Your task to perform on an android device: install app "Firefox Browser" Image 0: 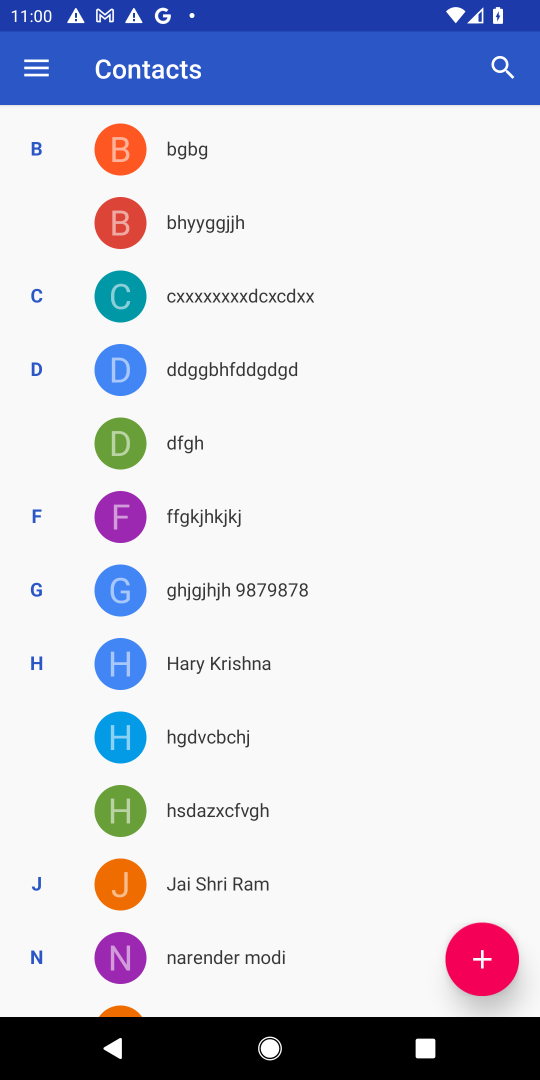
Step 0: press home button
Your task to perform on an android device: install app "Firefox Browser" Image 1: 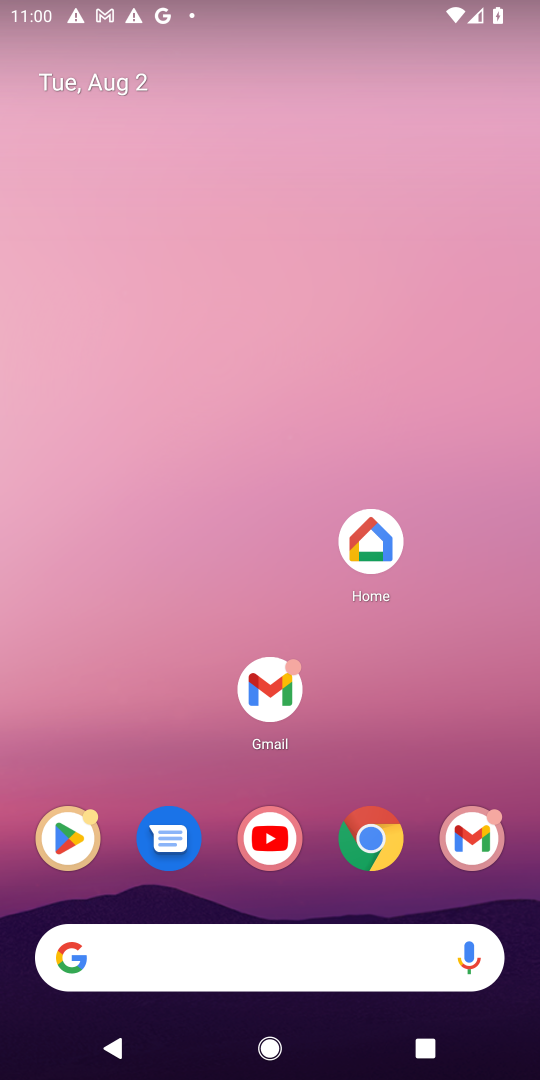
Step 1: drag from (407, 741) to (441, 176)
Your task to perform on an android device: install app "Firefox Browser" Image 2: 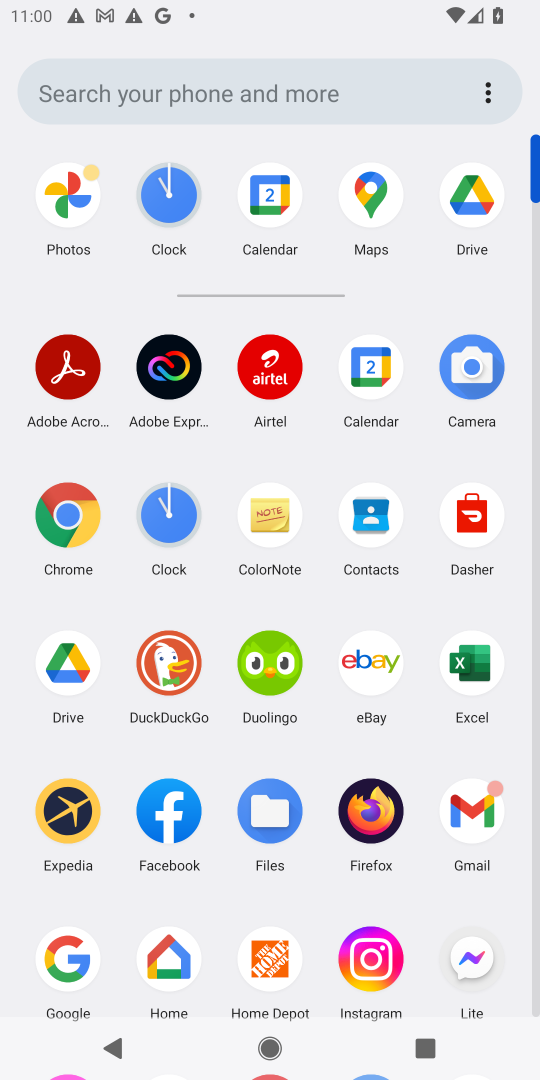
Step 2: drag from (420, 899) to (428, 640)
Your task to perform on an android device: install app "Firefox Browser" Image 3: 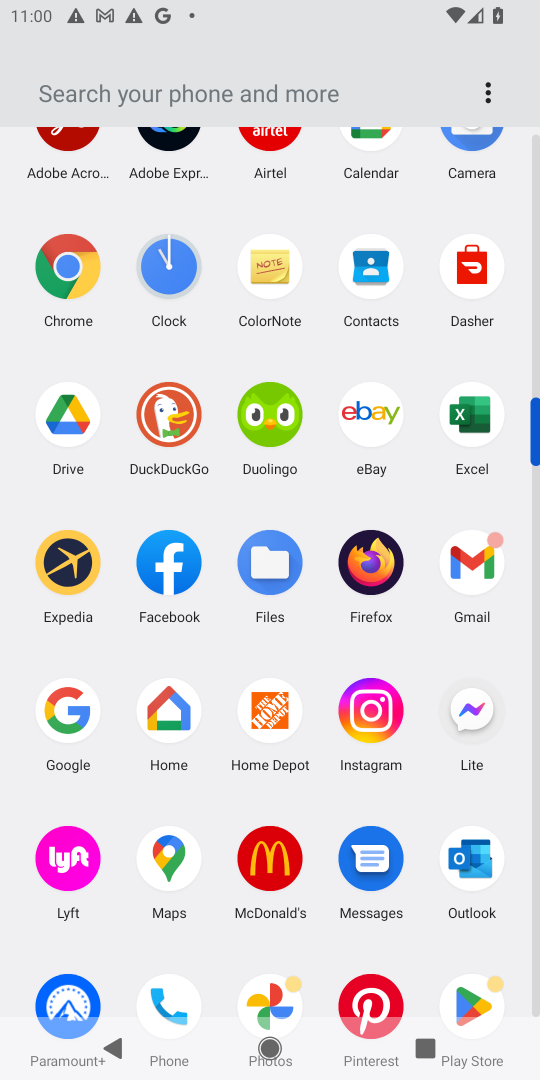
Step 3: drag from (411, 801) to (418, 542)
Your task to perform on an android device: install app "Firefox Browser" Image 4: 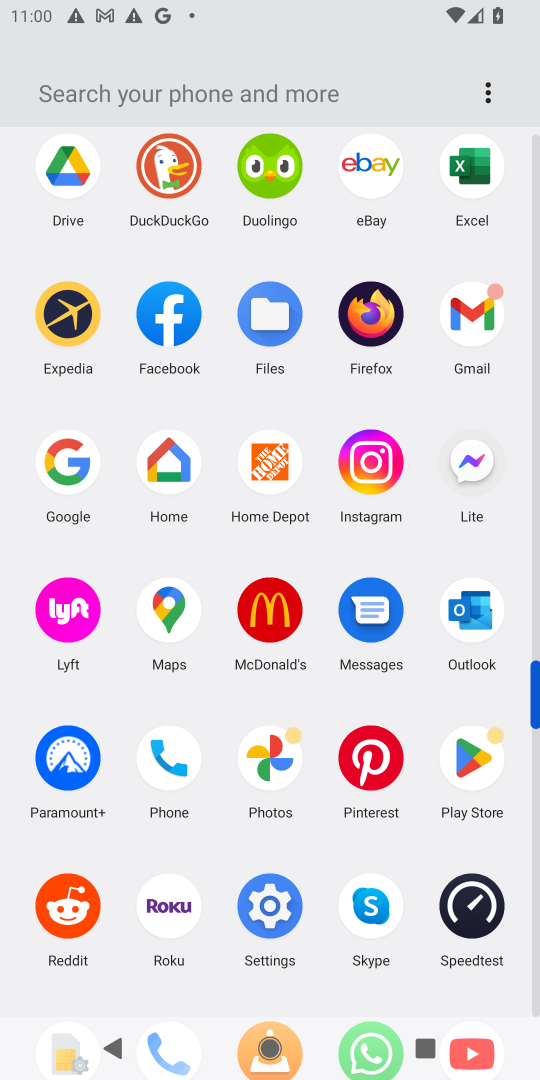
Step 4: click (486, 751)
Your task to perform on an android device: install app "Firefox Browser" Image 5: 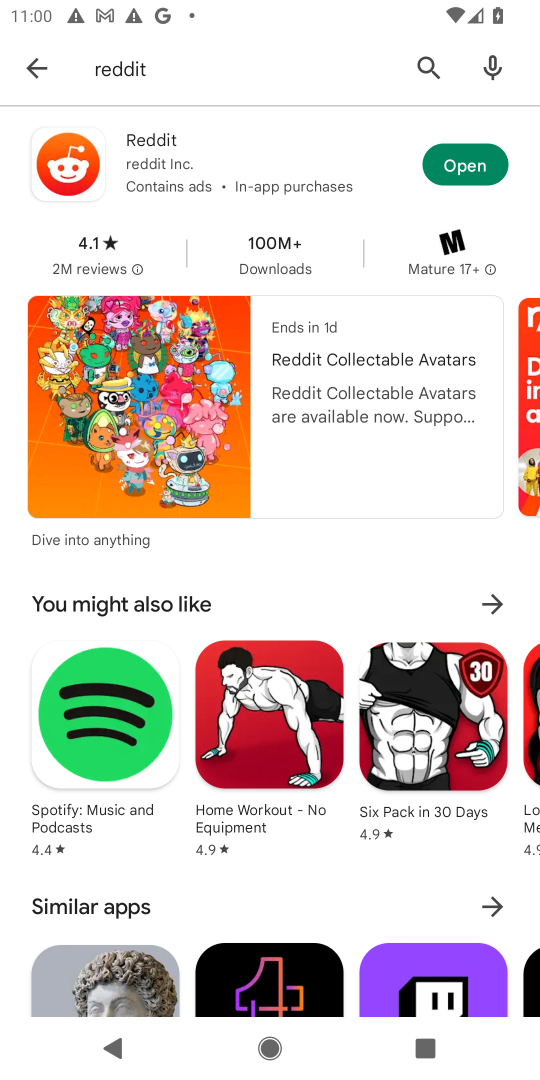
Step 5: click (424, 65)
Your task to perform on an android device: install app "Firefox Browser" Image 6: 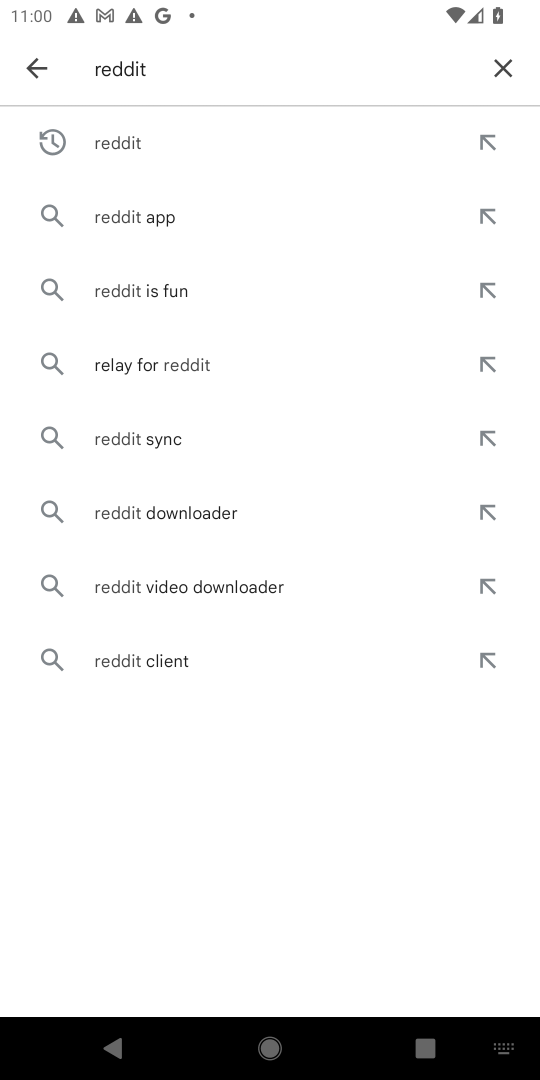
Step 6: click (498, 65)
Your task to perform on an android device: install app "Firefox Browser" Image 7: 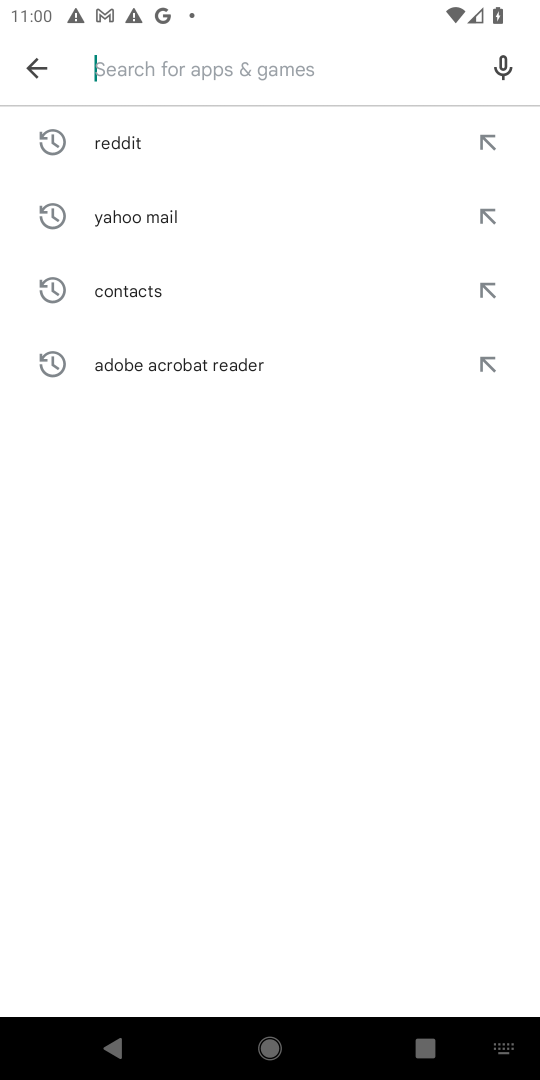
Step 7: click (380, 77)
Your task to perform on an android device: install app "Firefox Browser" Image 8: 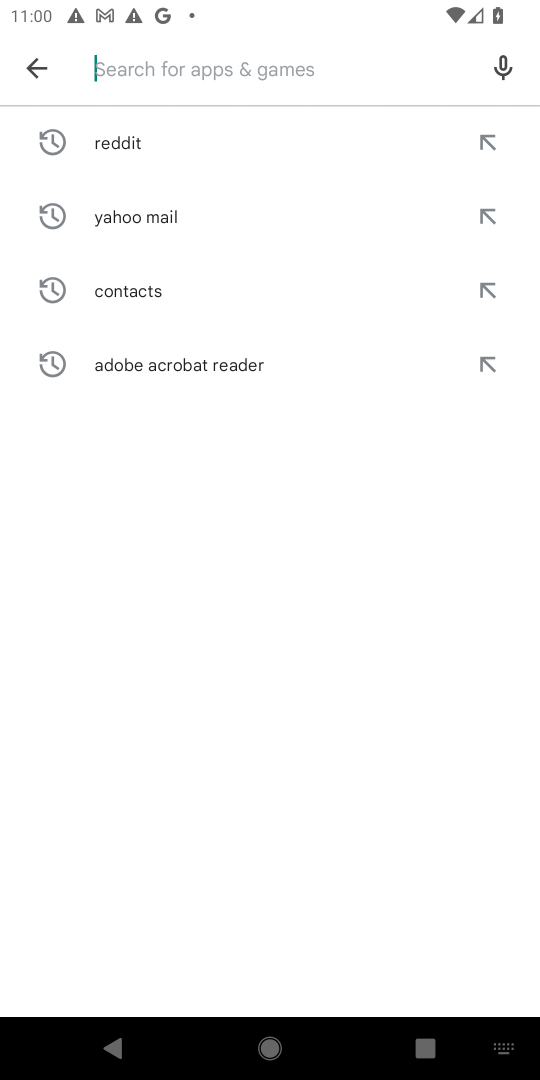
Step 8: type "firefox browser"
Your task to perform on an android device: install app "Firefox Browser" Image 9: 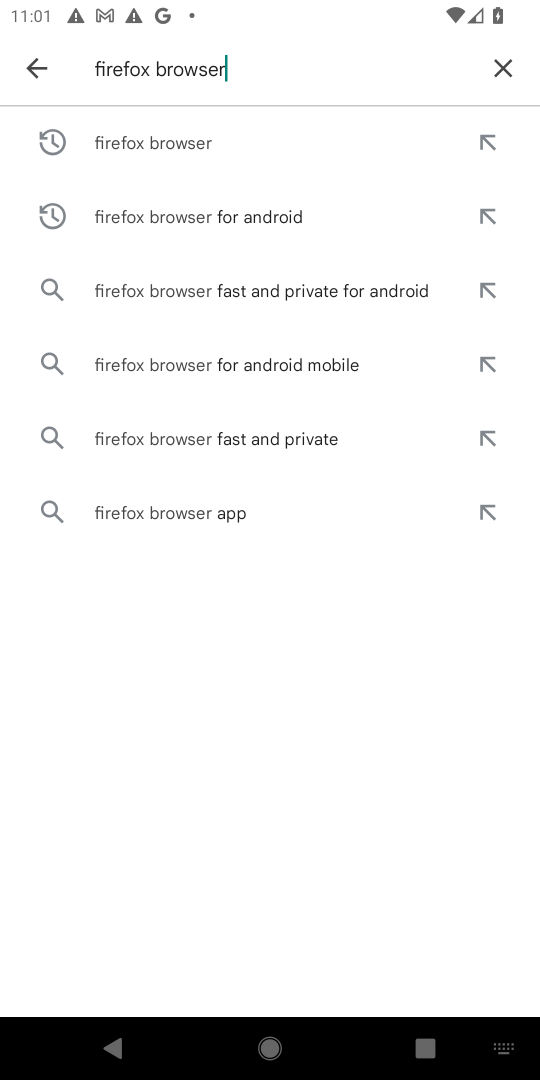
Step 9: click (242, 140)
Your task to perform on an android device: install app "Firefox Browser" Image 10: 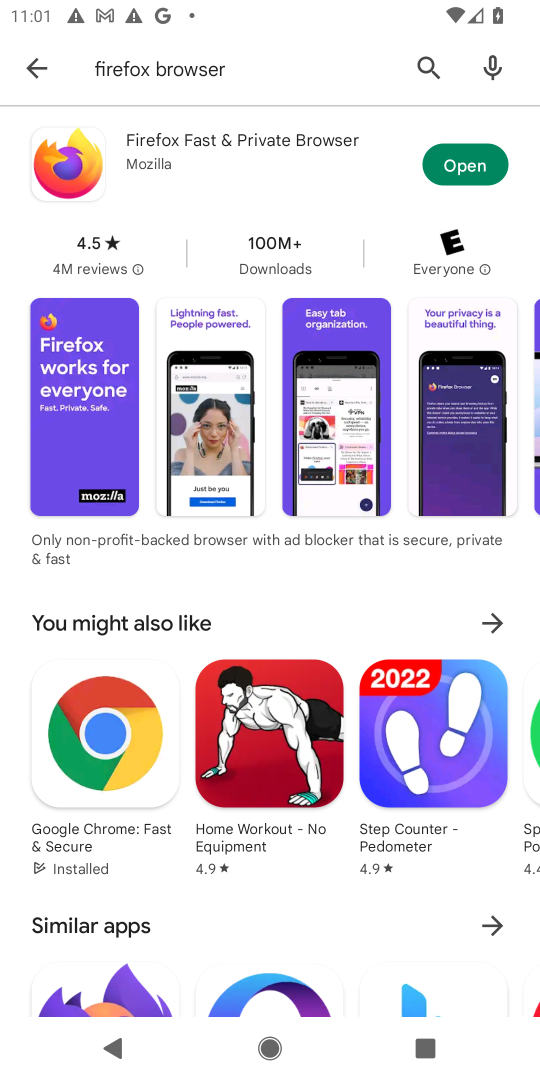
Step 10: task complete